Your task to perform on an android device: Clear the cart on ebay. Add usb-c to usb-a to the cart on ebay, then select checkout. Image 0: 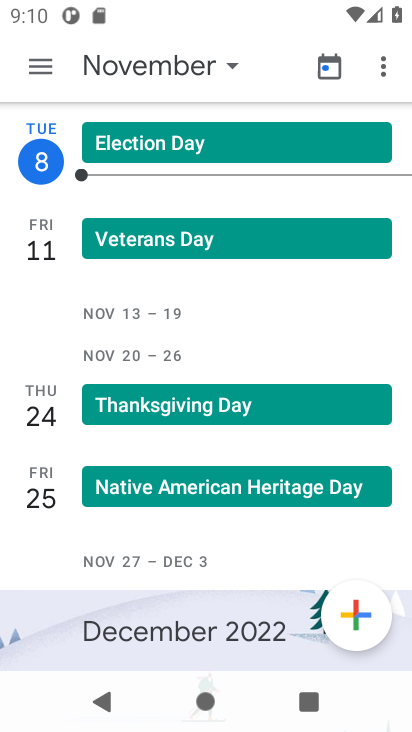
Step 0: press home button
Your task to perform on an android device: Clear the cart on ebay. Add usb-c to usb-a to the cart on ebay, then select checkout. Image 1: 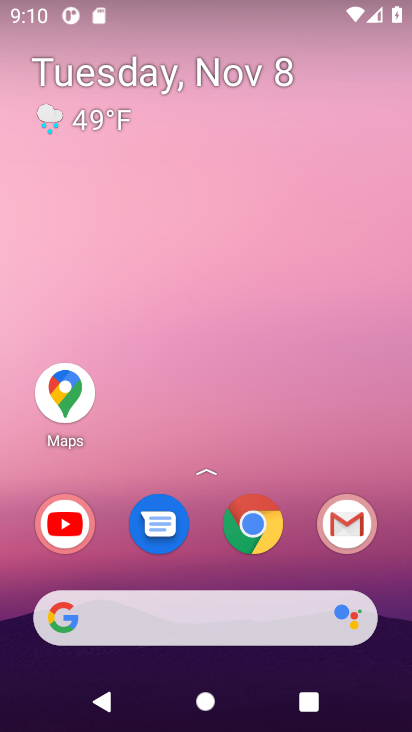
Step 1: click (256, 537)
Your task to perform on an android device: Clear the cart on ebay. Add usb-c to usb-a to the cart on ebay, then select checkout. Image 2: 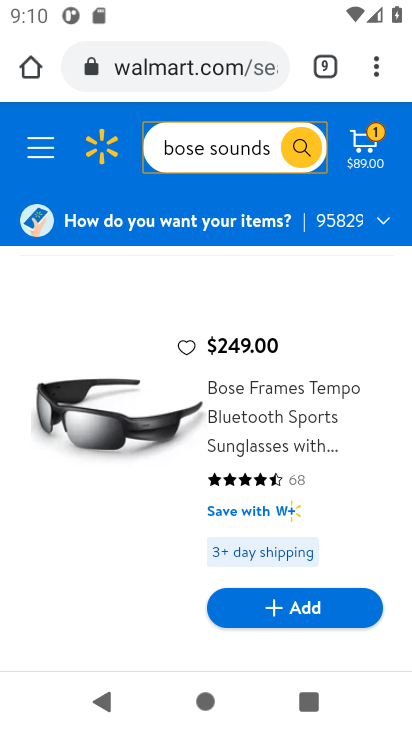
Step 2: click (179, 75)
Your task to perform on an android device: Clear the cart on ebay. Add usb-c to usb-a to the cart on ebay, then select checkout. Image 3: 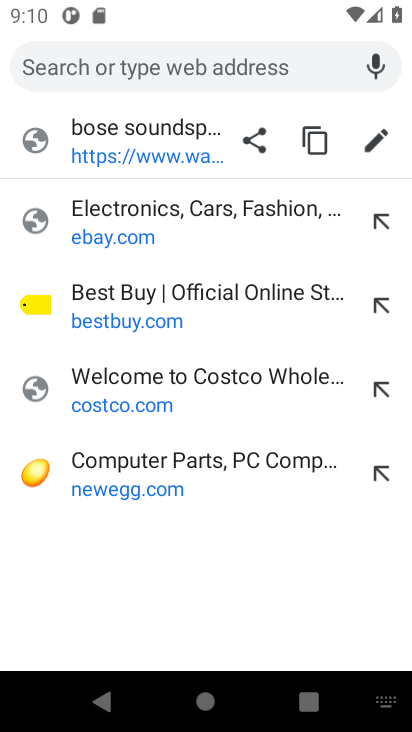
Step 3: click (112, 230)
Your task to perform on an android device: Clear the cart on ebay. Add usb-c to usb-a to the cart on ebay, then select checkout. Image 4: 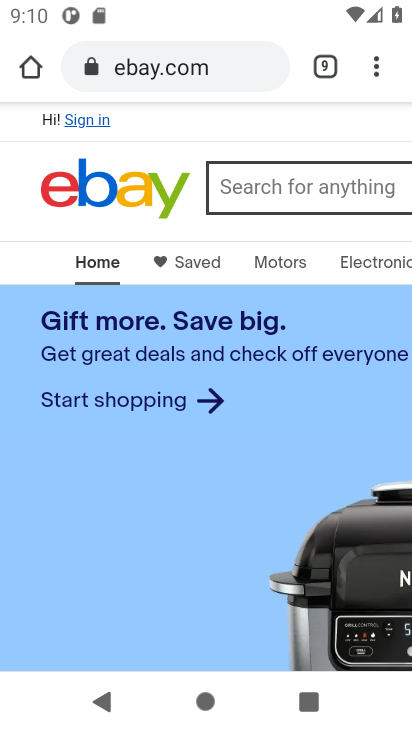
Step 4: drag from (318, 244) to (57, 264)
Your task to perform on an android device: Clear the cart on ebay. Add usb-c to usb-a to the cart on ebay, then select checkout. Image 5: 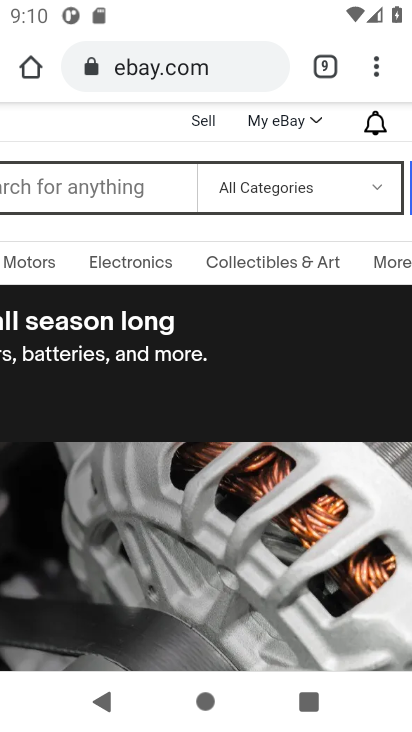
Step 5: drag from (327, 242) to (157, 250)
Your task to perform on an android device: Clear the cart on ebay. Add usb-c to usb-a to the cart on ebay, then select checkout. Image 6: 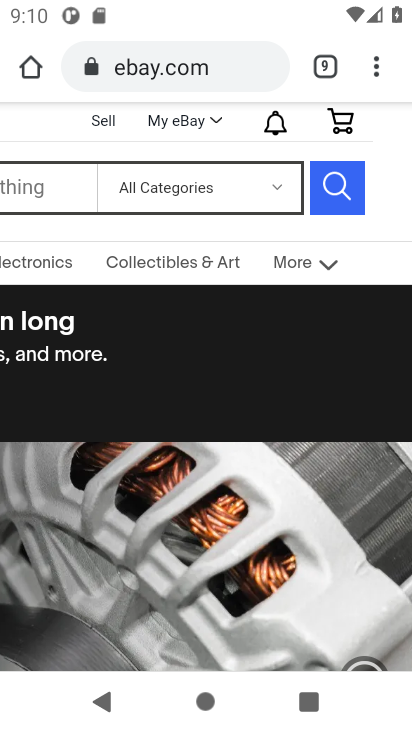
Step 6: click (346, 126)
Your task to perform on an android device: Clear the cart on ebay. Add usb-c to usb-a to the cart on ebay, then select checkout. Image 7: 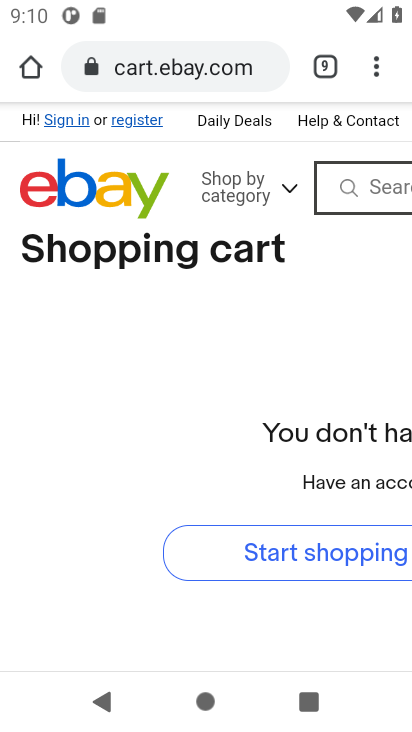
Step 7: drag from (205, 444) to (70, 458)
Your task to perform on an android device: Clear the cart on ebay. Add usb-c to usb-a to the cart on ebay, then select checkout. Image 8: 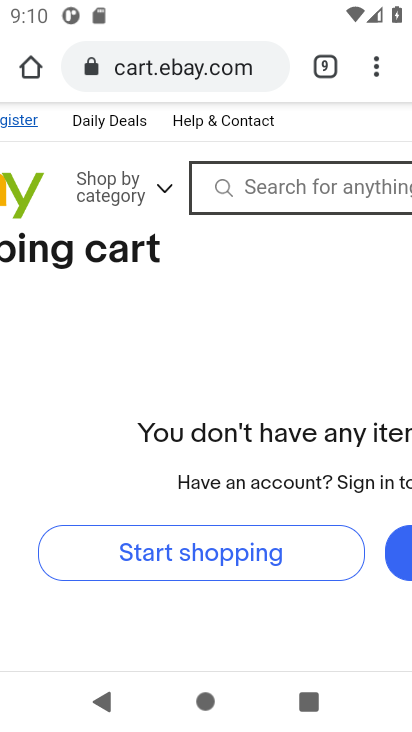
Step 8: click (314, 181)
Your task to perform on an android device: Clear the cart on ebay. Add usb-c to usb-a to the cart on ebay, then select checkout. Image 9: 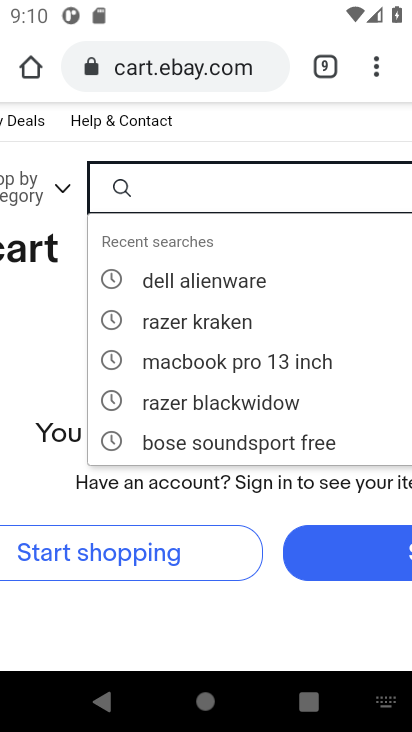
Step 9: type "usb-c to usb-a"
Your task to perform on an android device: Clear the cart on ebay. Add usb-c to usb-a to the cart on ebay, then select checkout. Image 10: 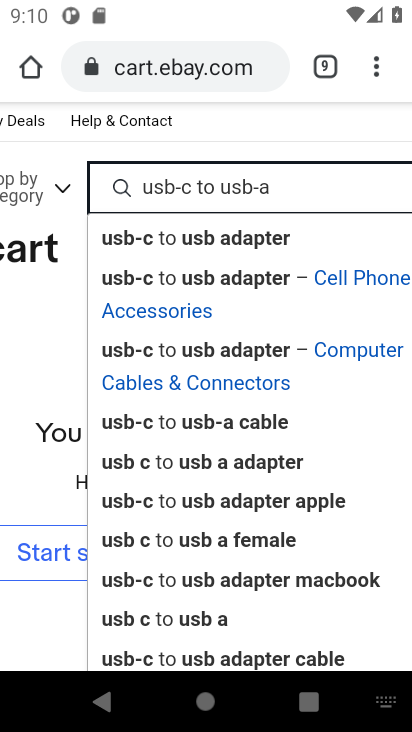
Step 10: click (124, 185)
Your task to perform on an android device: Clear the cart on ebay. Add usb-c to usb-a to the cart on ebay, then select checkout. Image 11: 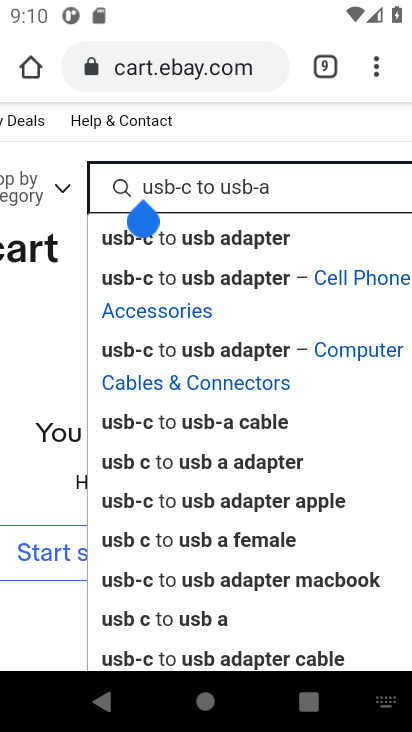
Step 11: click (122, 189)
Your task to perform on an android device: Clear the cart on ebay. Add usb-c to usb-a to the cart on ebay, then select checkout. Image 12: 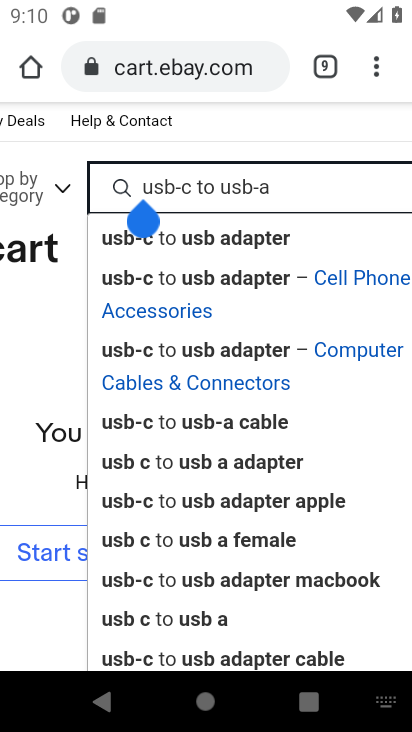
Step 12: drag from (304, 196) to (1, 176)
Your task to perform on an android device: Clear the cart on ebay. Add usb-c to usb-a to the cart on ebay, then select checkout. Image 13: 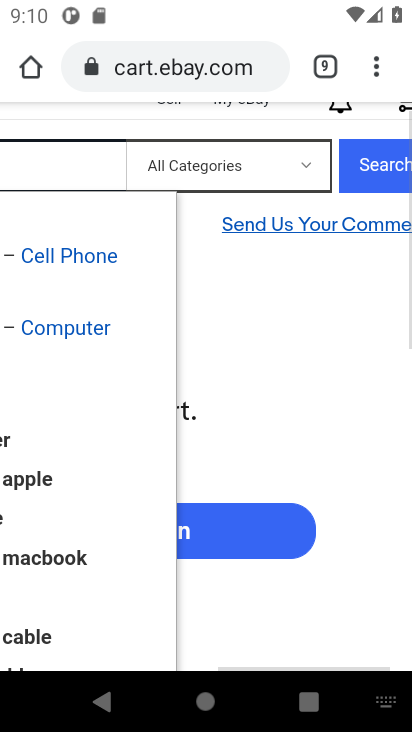
Step 13: click (368, 190)
Your task to perform on an android device: Clear the cart on ebay. Add usb-c to usb-a to the cart on ebay, then select checkout. Image 14: 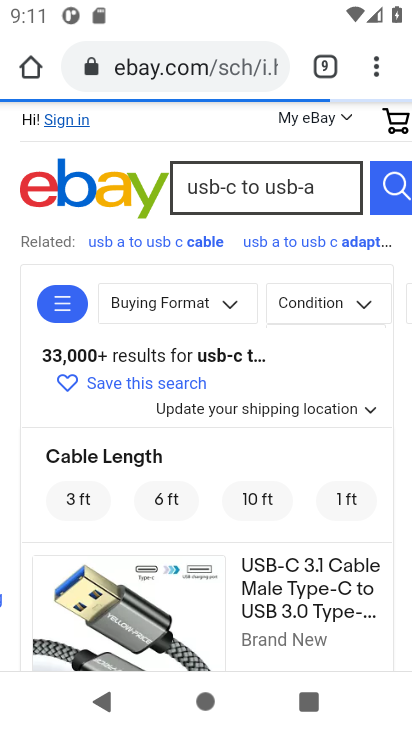
Step 14: drag from (227, 543) to (209, 374)
Your task to perform on an android device: Clear the cart on ebay. Add usb-c to usb-a to the cart on ebay, then select checkout. Image 15: 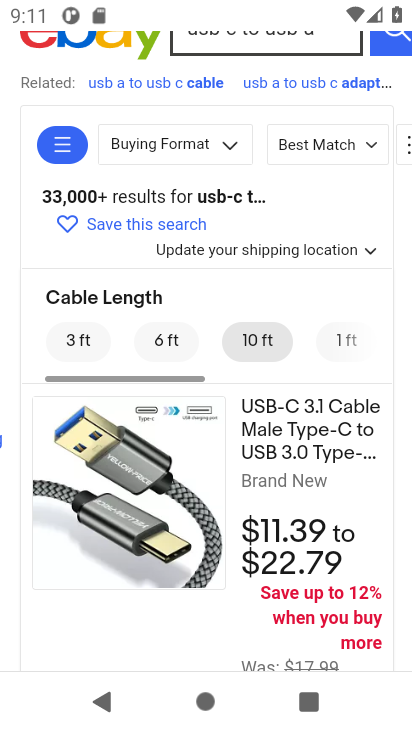
Step 15: drag from (182, 523) to (221, 196)
Your task to perform on an android device: Clear the cart on ebay. Add usb-c to usb-a to the cart on ebay, then select checkout. Image 16: 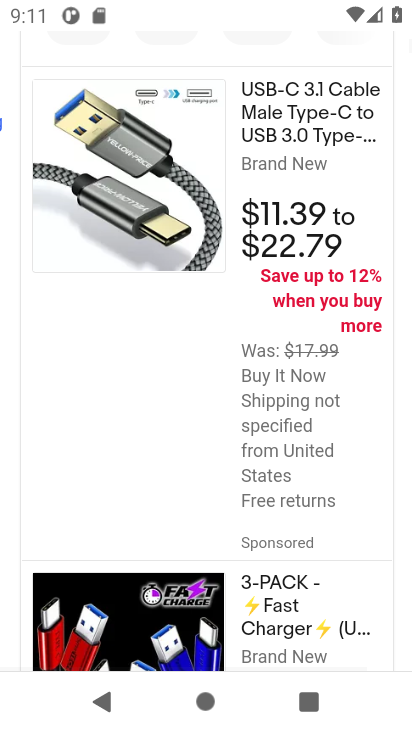
Step 16: drag from (191, 510) to (208, 242)
Your task to perform on an android device: Clear the cart on ebay. Add usb-c to usb-a to the cart on ebay, then select checkout. Image 17: 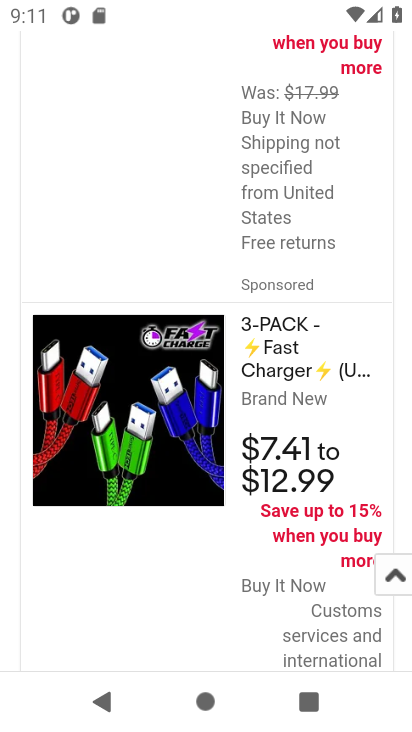
Step 17: drag from (157, 404) to (166, 610)
Your task to perform on an android device: Clear the cart on ebay. Add usb-c to usb-a to the cart on ebay, then select checkout. Image 18: 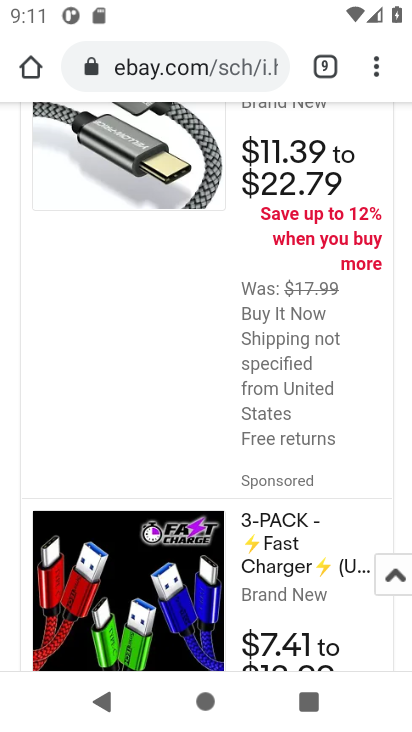
Step 18: drag from (154, 331) to (154, 547)
Your task to perform on an android device: Clear the cart on ebay. Add usb-c to usb-a to the cart on ebay, then select checkout. Image 19: 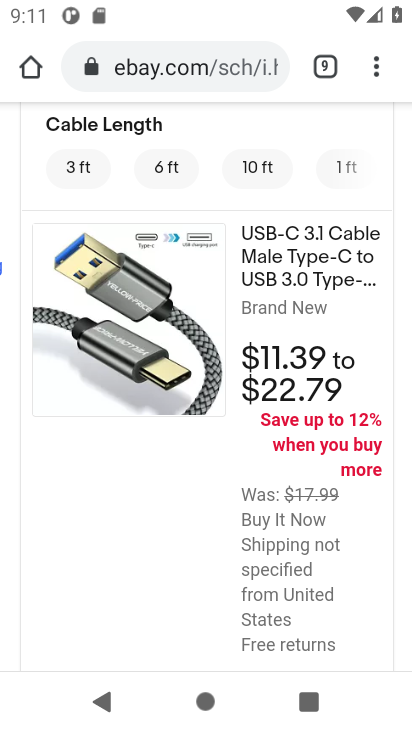
Step 19: click (159, 356)
Your task to perform on an android device: Clear the cart on ebay. Add usb-c to usb-a to the cart on ebay, then select checkout. Image 20: 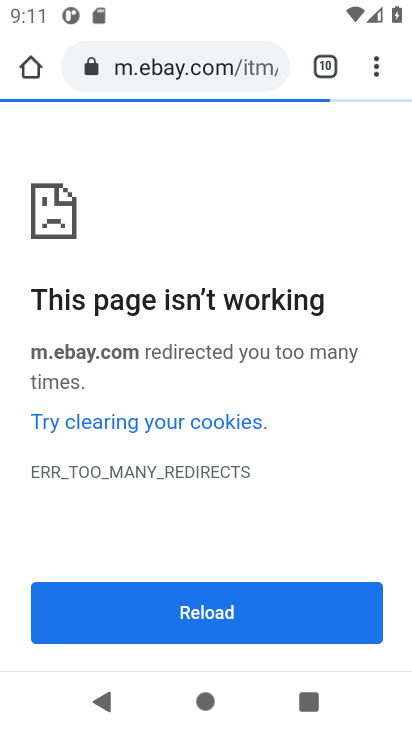
Step 20: task complete